Your task to perform on an android device: find which apps use the phone's location Image 0: 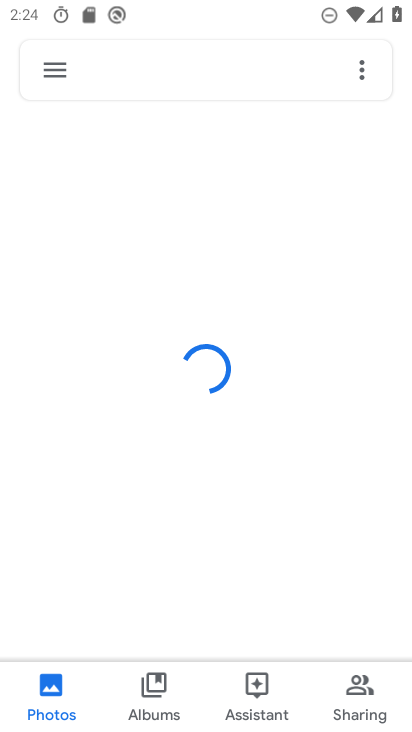
Step 0: press home button
Your task to perform on an android device: find which apps use the phone's location Image 1: 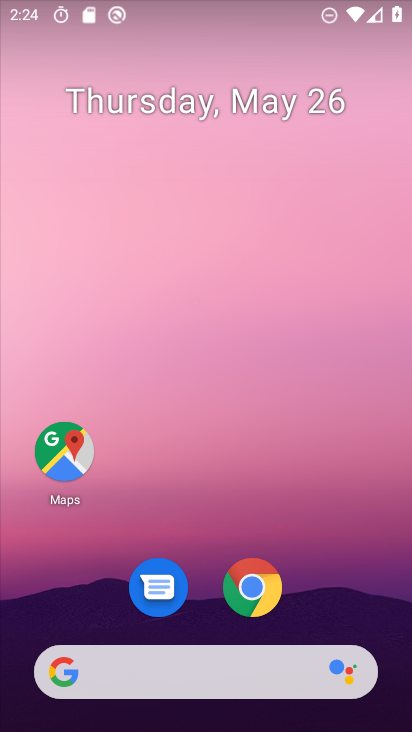
Step 1: drag from (332, 474) to (320, 130)
Your task to perform on an android device: find which apps use the phone's location Image 2: 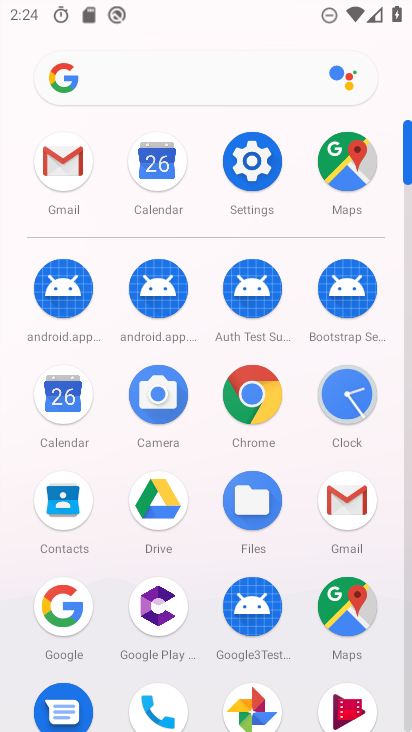
Step 2: click (259, 178)
Your task to perform on an android device: find which apps use the phone's location Image 3: 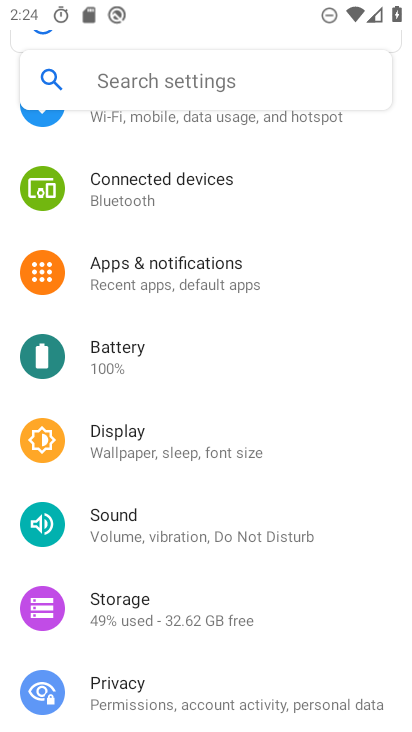
Step 3: drag from (254, 596) to (269, 223)
Your task to perform on an android device: find which apps use the phone's location Image 4: 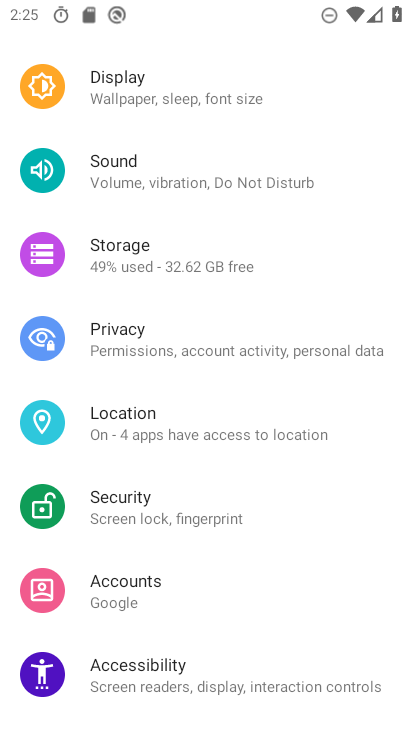
Step 4: click (133, 414)
Your task to perform on an android device: find which apps use the phone's location Image 5: 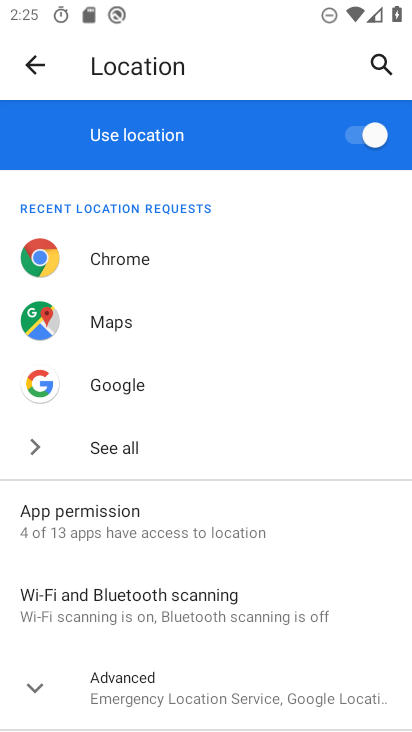
Step 5: click (183, 687)
Your task to perform on an android device: find which apps use the phone's location Image 6: 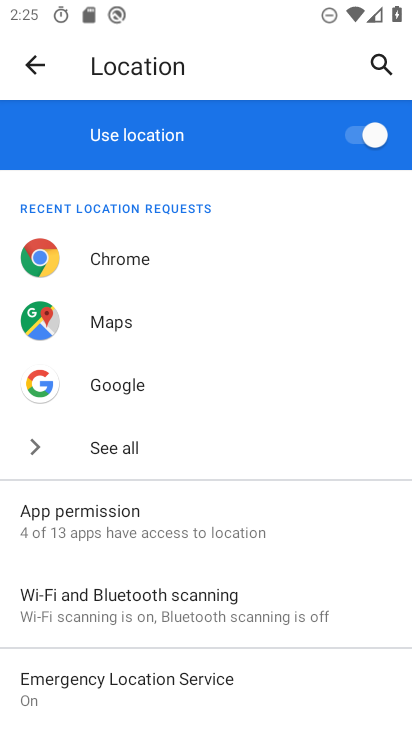
Step 6: click (199, 512)
Your task to perform on an android device: find which apps use the phone's location Image 7: 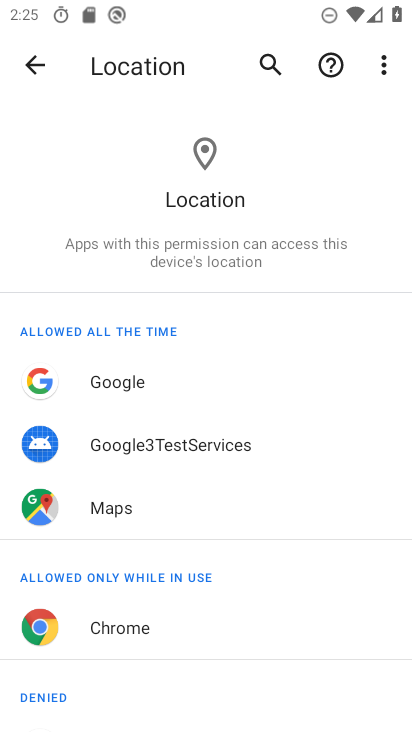
Step 7: task complete